Your task to perform on an android device: delete a single message in the gmail app Image 0: 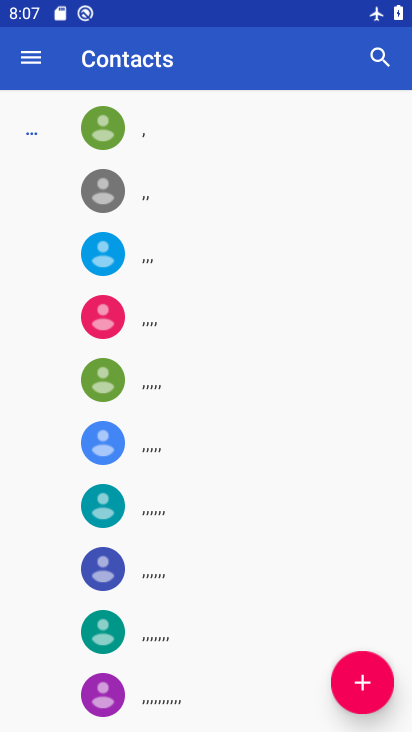
Step 0: press home button
Your task to perform on an android device: delete a single message in the gmail app Image 1: 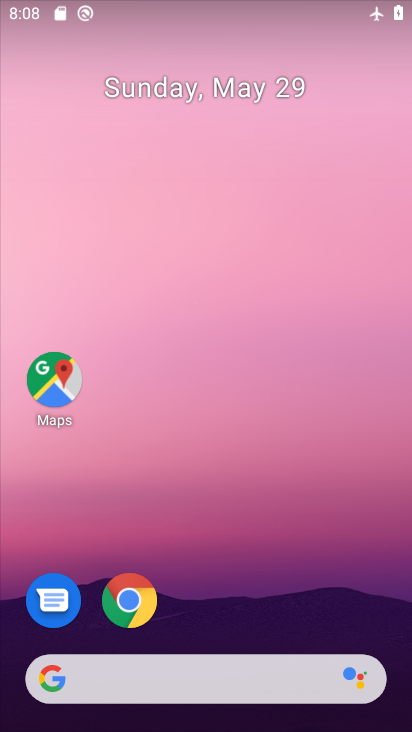
Step 1: drag from (188, 629) to (298, 1)
Your task to perform on an android device: delete a single message in the gmail app Image 2: 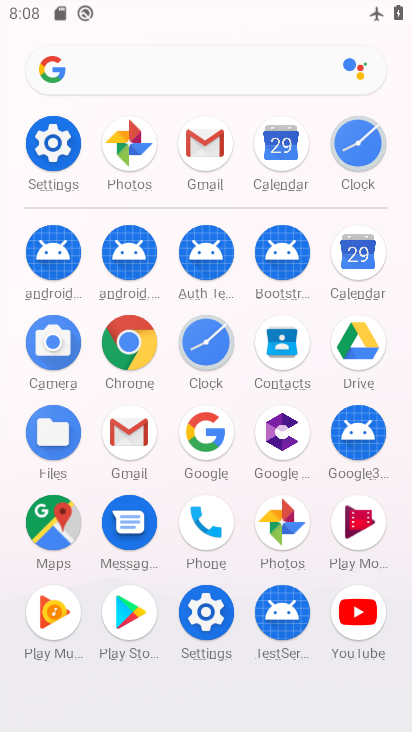
Step 2: click (128, 424)
Your task to perform on an android device: delete a single message in the gmail app Image 3: 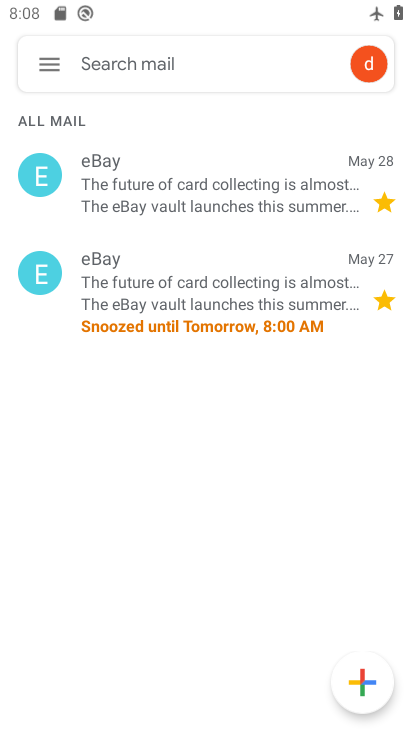
Step 3: click (41, 166)
Your task to perform on an android device: delete a single message in the gmail app Image 4: 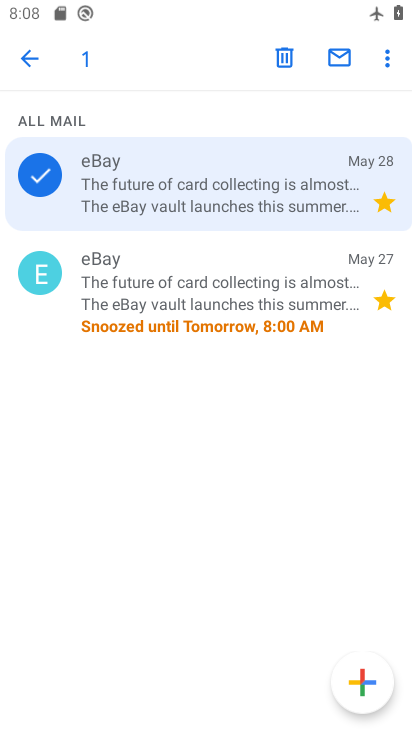
Step 4: click (289, 60)
Your task to perform on an android device: delete a single message in the gmail app Image 5: 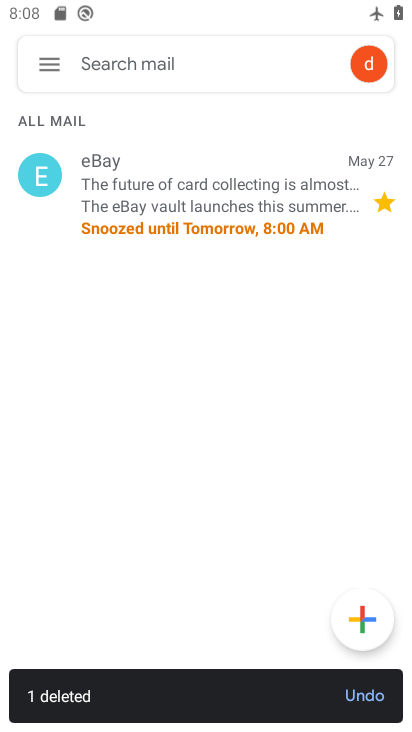
Step 5: task complete